Your task to perform on an android device: turn on notifications settings in the gmail app Image 0: 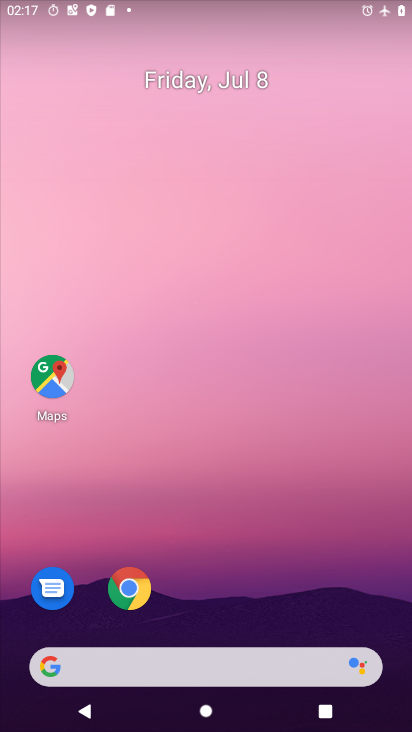
Step 0: drag from (278, 583) to (269, 58)
Your task to perform on an android device: turn on notifications settings in the gmail app Image 1: 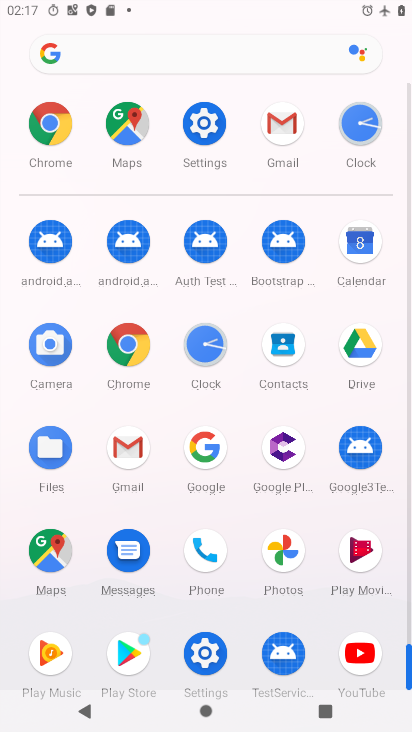
Step 1: click (276, 126)
Your task to perform on an android device: turn on notifications settings in the gmail app Image 2: 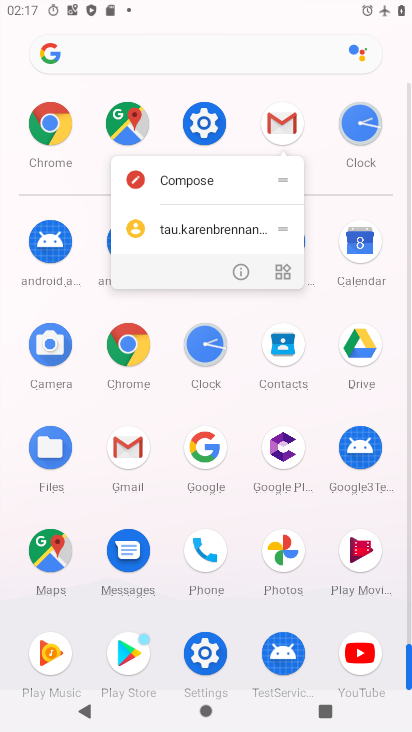
Step 2: click (236, 263)
Your task to perform on an android device: turn on notifications settings in the gmail app Image 3: 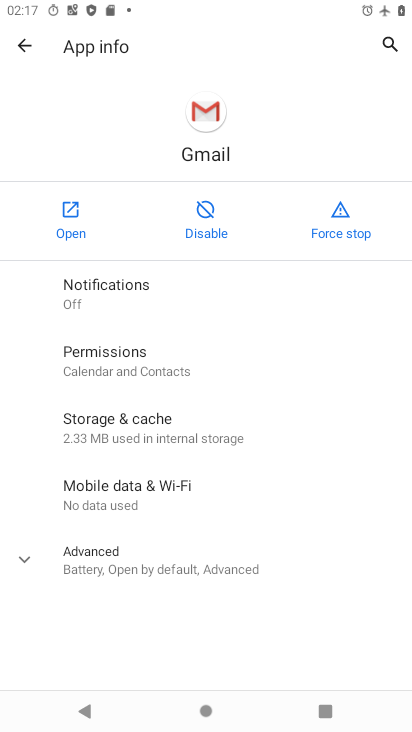
Step 3: click (65, 207)
Your task to perform on an android device: turn on notifications settings in the gmail app Image 4: 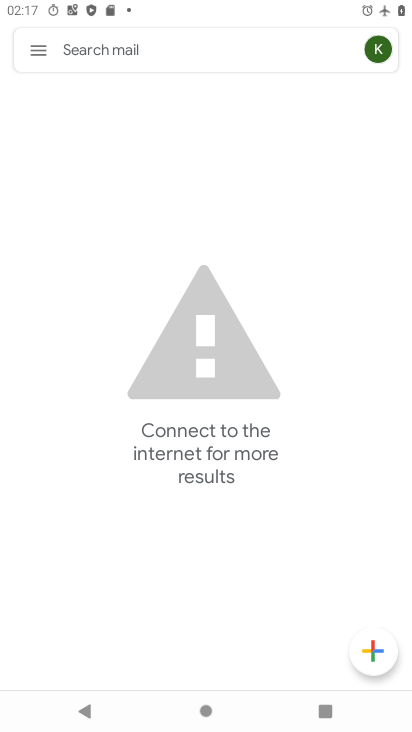
Step 4: click (27, 50)
Your task to perform on an android device: turn on notifications settings in the gmail app Image 5: 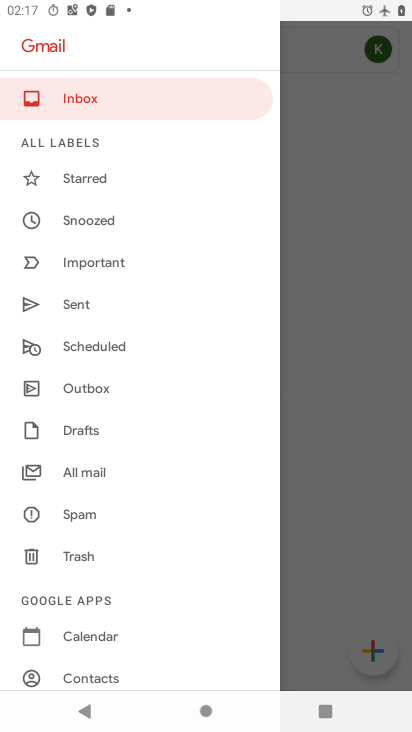
Step 5: drag from (136, 473) to (256, 164)
Your task to perform on an android device: turn on notifications settings in the gmail app Image 6: 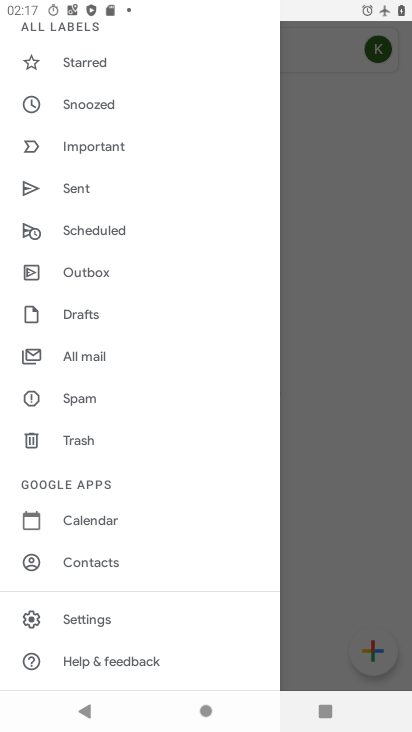
Step 6: click (94, 624)
Your task to perform on an android device: turn on notifications settings in the gmail app Image 7: 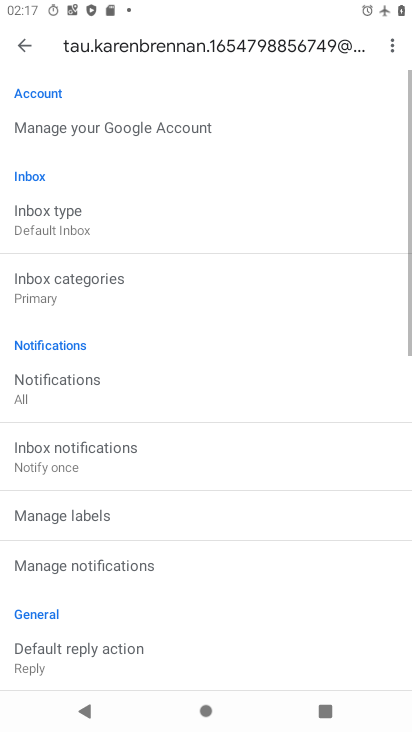
Step 7: drag from (182, 573) to (212, 1)
Your task to perform on an android device: turn on notifications settings in the gmail app Image 8: 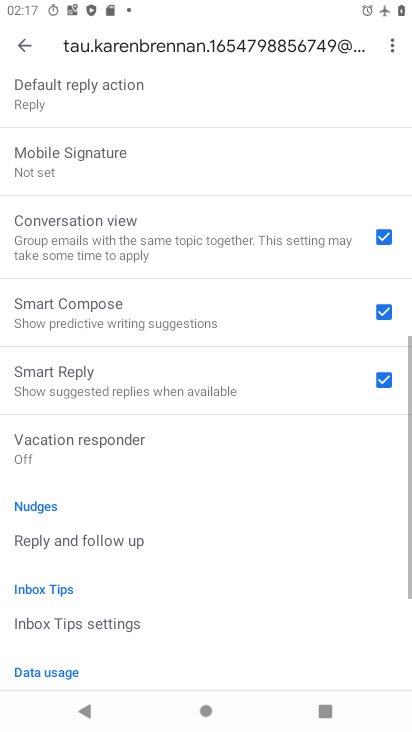
Step 8: drag from (137, 178) to (129, 633)
Your task to perform on an android device: turn on notifications settings in the gmail app Image 9: 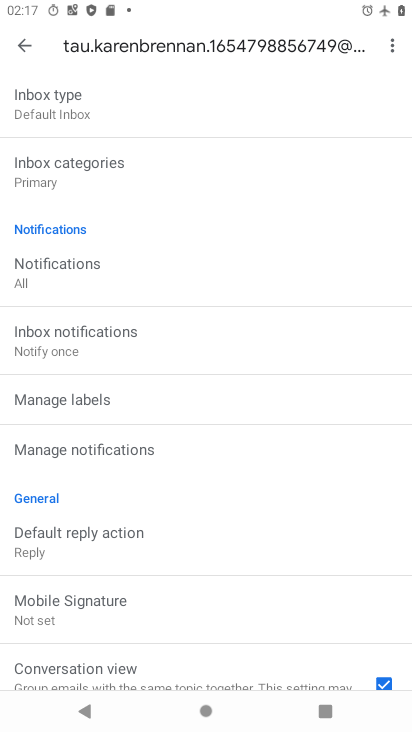
Step 9: click (131, 439)
Your task to perform on an android device: turn on notifications settings in the gmail app Image 10: 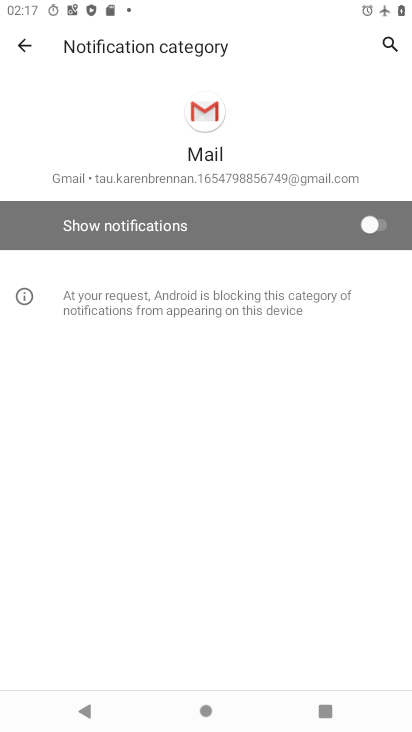
Step 10: click (334, 234)
Your task to perform on an android device: turn on notifications settings in the gmail app Image 11: 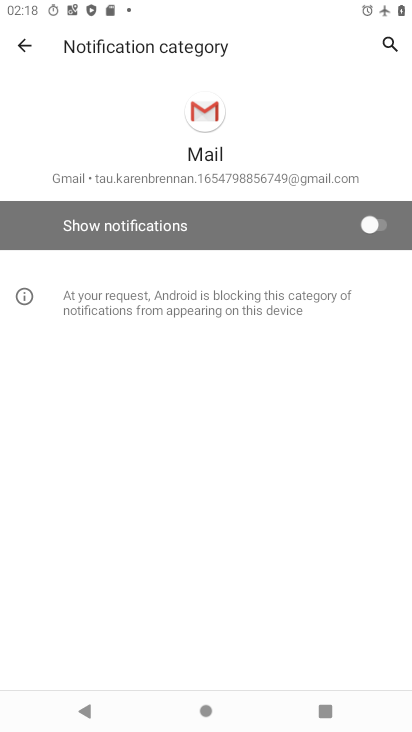
Step 11: click (367, 210)
Your task to perform on an android device: turn on notifications settings in the gmail app Image 12: 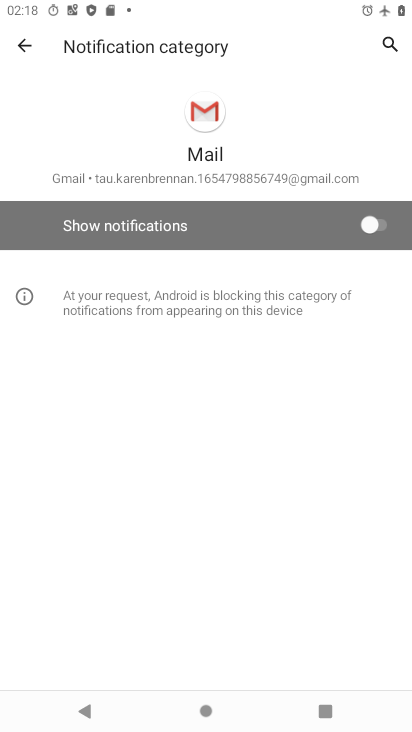
Step 12: task complete